Your task to perform on an android device: turn on javascript in the chrome app Image 0: 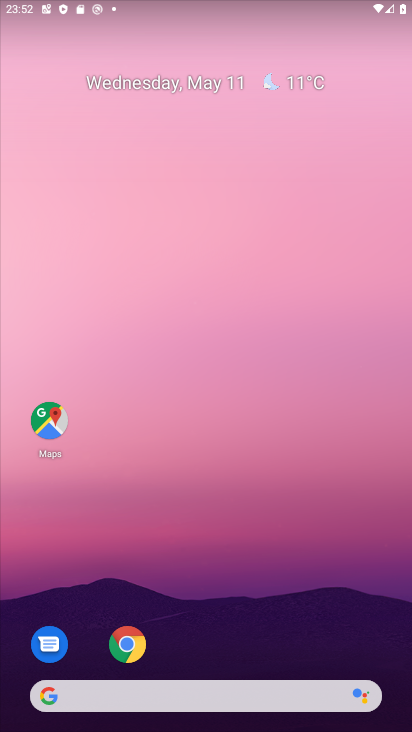
Step 0: drag from (222, 645) to (245, 89)
Your task to perform on an android device: turn on javascript in the chrome app Image 1: 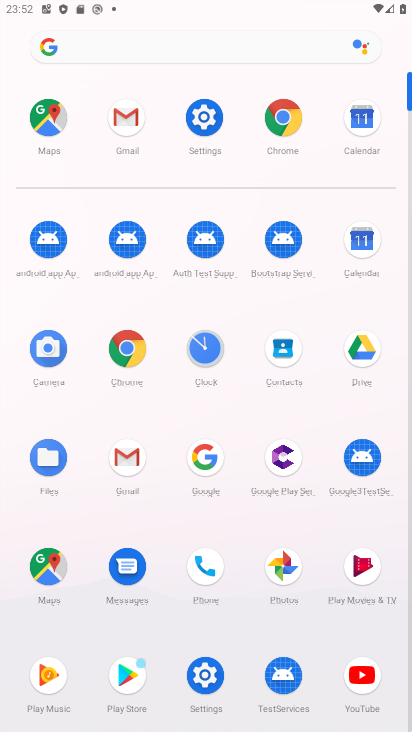
Step 1: click (123, 349)
Your task to perform on an android device: turn on javascript in the chrome app Image 2: 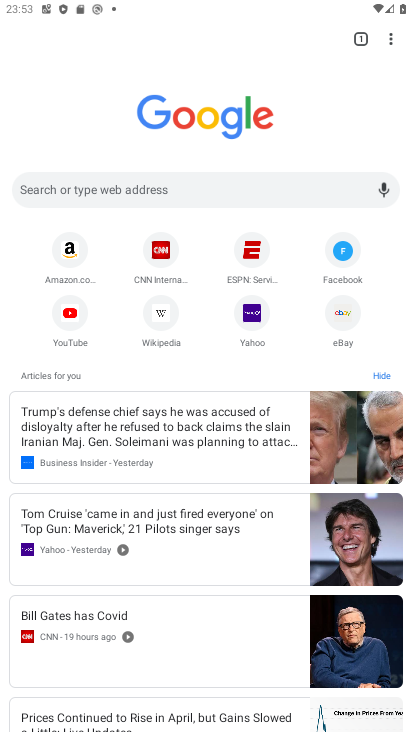
Step 2: click (387, 39)
Your task to perform on an android device: turn on javascript in the chrome app Image 3: 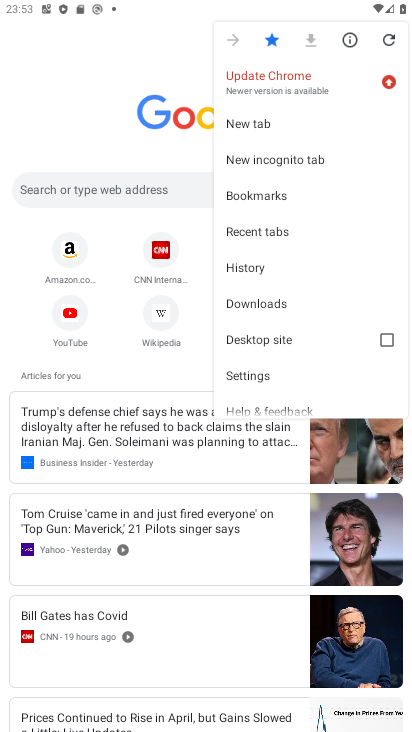
Step 3: click (264, 378)
Your task to perform on an android device: turn on javascript in the chrome app Image 4: 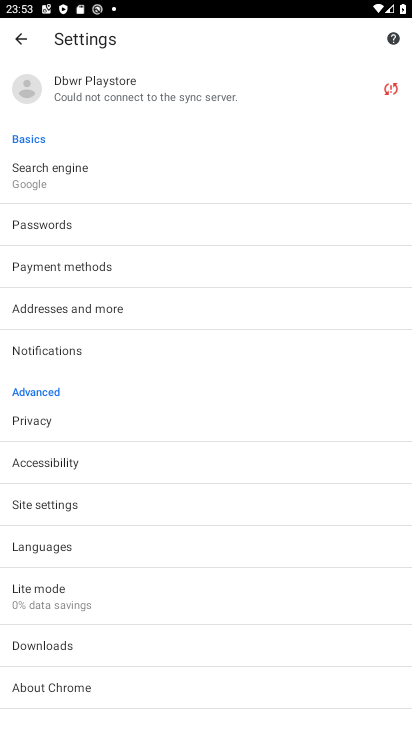
Step 4: click (85, 505)
Your task to perform on an android device: turn on javascript in the chrome app Image 5: 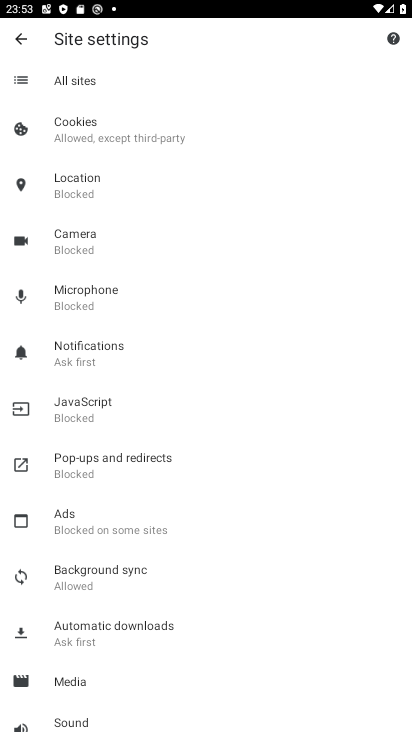
Step 5: click (109, 412)
Your task to perform on an android device: turn on javascript in the chrome app Image 6: 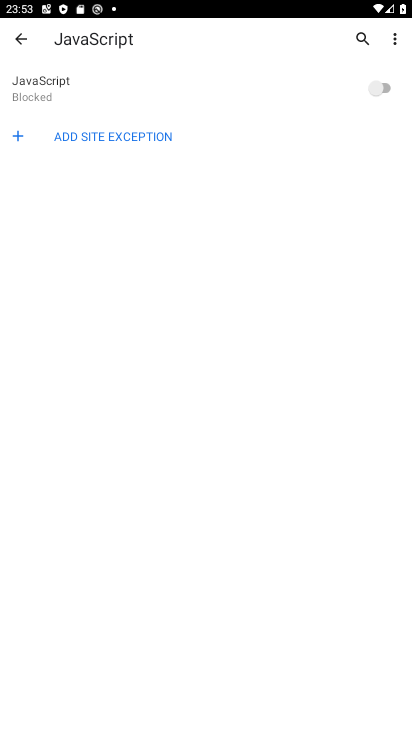
Step 6: click (382, 83)
Your task to perform on an android device: turn on javascript in the chrome app Image 7: 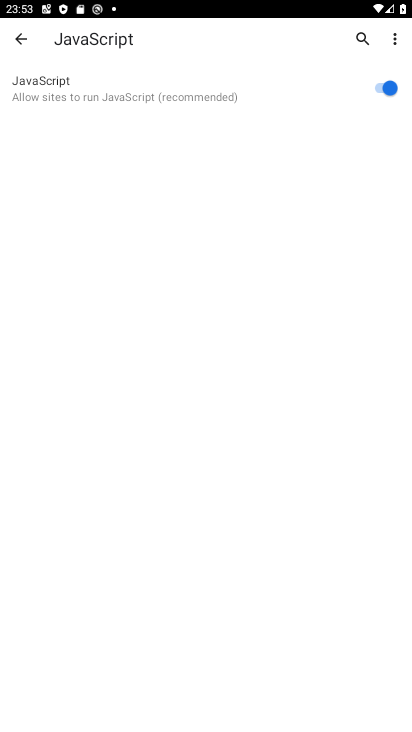
Step 7: task complete